Your task to perform on an android device: set the timer Image 0: 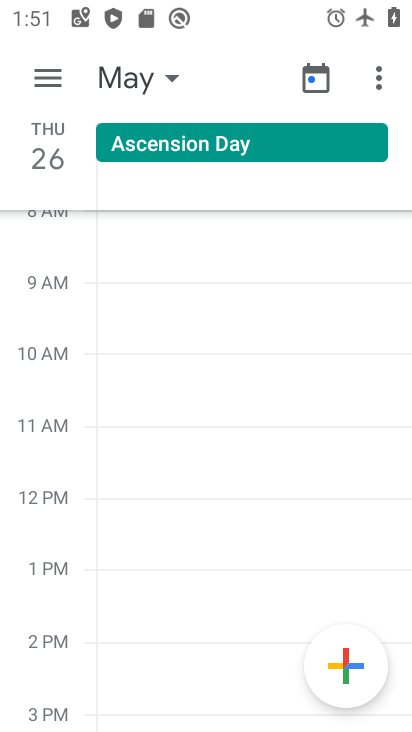
Step 0: press home button
Your task to perform on an android device: set the timer Image 1: 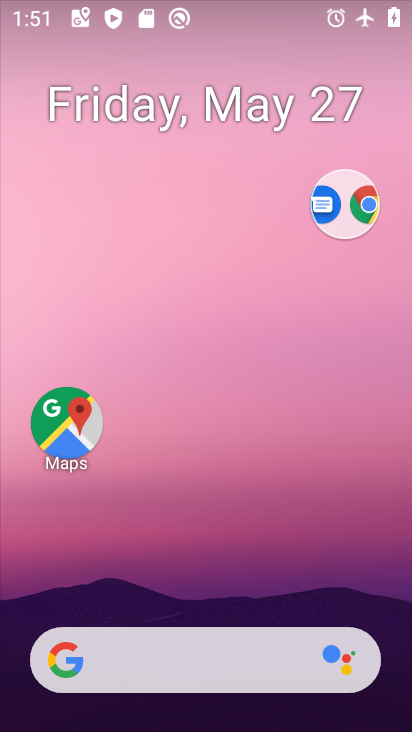
Step 1: drag from (195, 621) to (190, 99)
Your task to perform on an android device: set the timer Image 2: 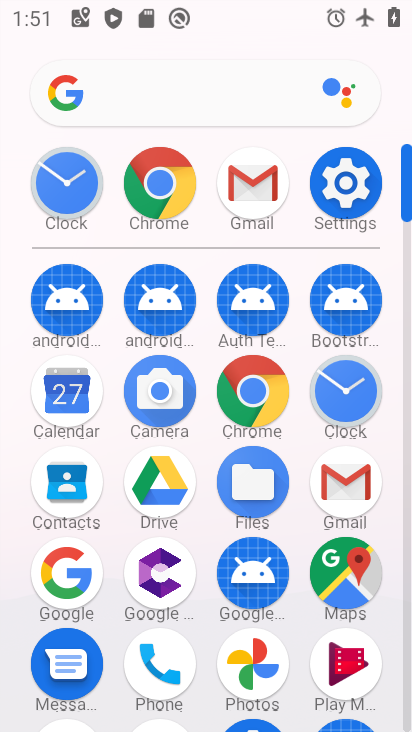
Step 2: click (343, 405)
Your task to perform on an android device: set the timer Image 3: 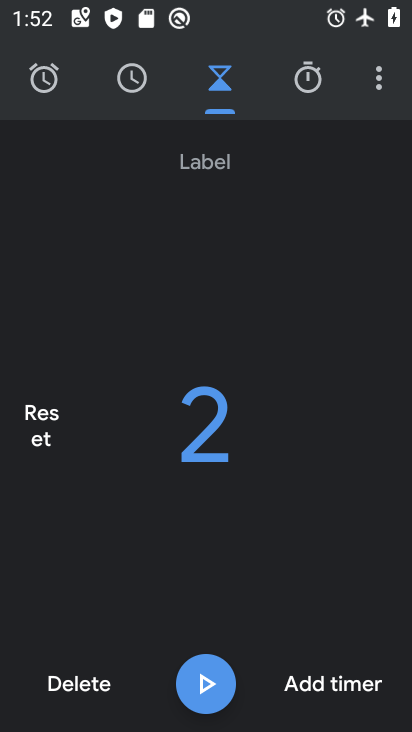
Step 3: click (224, 688)
Your task to perform on an android device: set the timer Image 4: 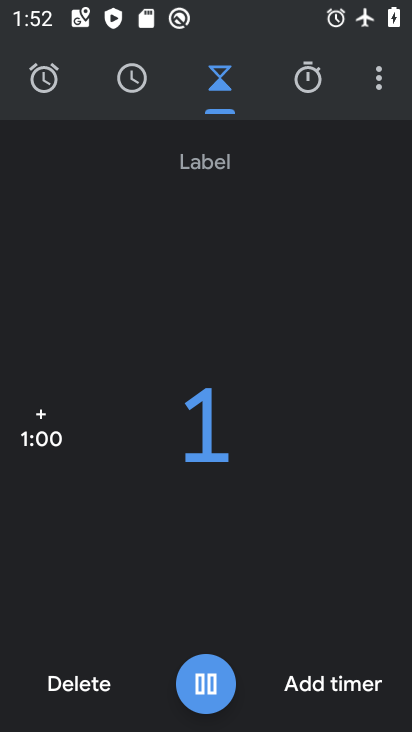
Step 4: task complete